Your task to perform on an android device: turn smart compose on in the gmail app Image 0: 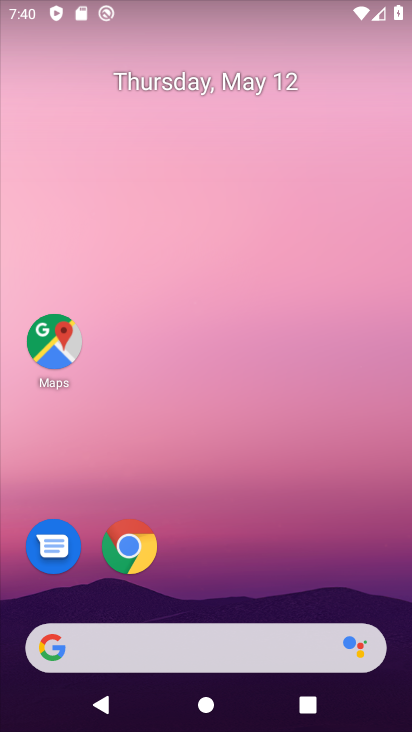
Step 0: drag from (228, 396) to (309, 43)
Your task to perform on an android device: turn smart compose on in the gmail app Image 1: 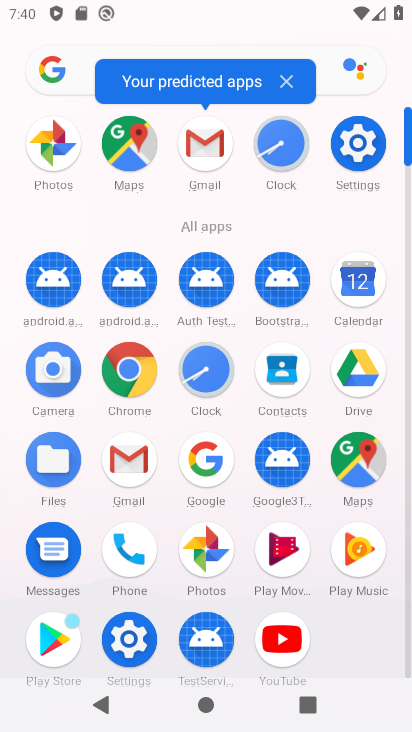
Step 1: click (128, 445)
Your task to perform on an android device: turn smart compose on in the gmail app Image 2: 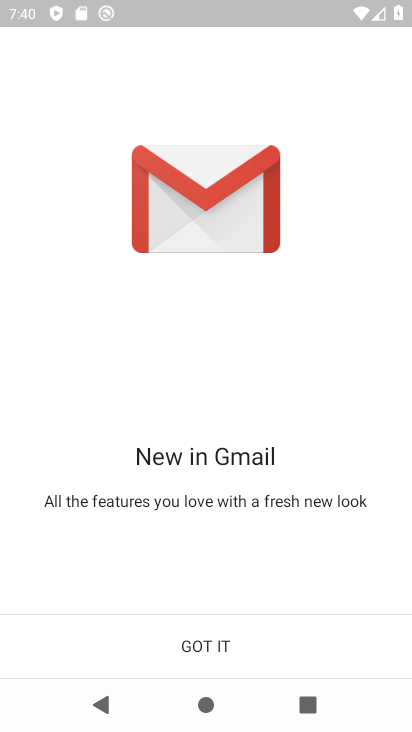
Step 2: click (189, 632)
Your task to perform on an android device: turn smart compose on in the gmail app Image 3: 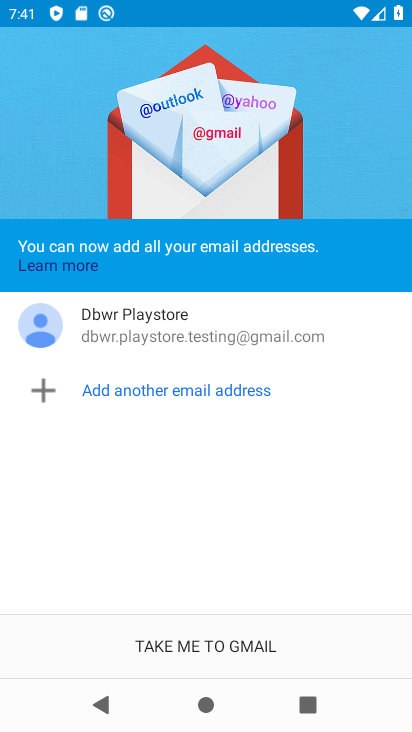
Step 3: click (234, 662)
Your task to perform on an android device: turn smart compose on in the gmail app Image 4: 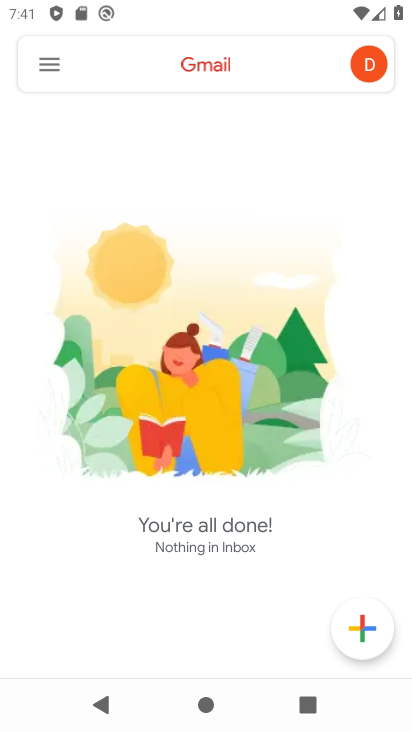
Step 4: click (47, 56)
Your task to perform on an android device: turn smart compose on in the gmail app Image 5: 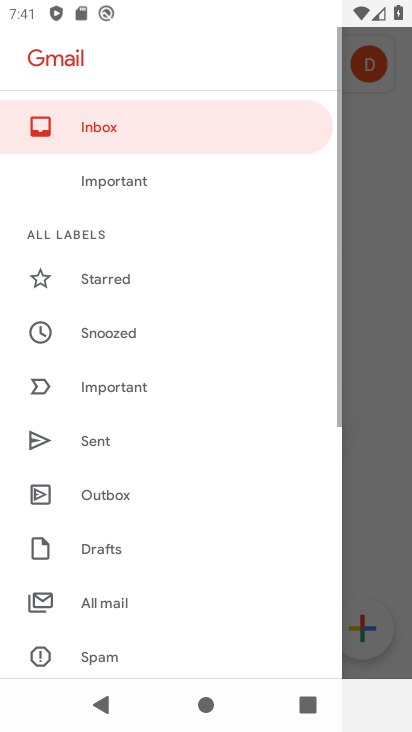
Step 5: drag from (169, 682) to (275, 86)
Your task to perform on an android device: turn smart compose on in the gmail app Image 6: 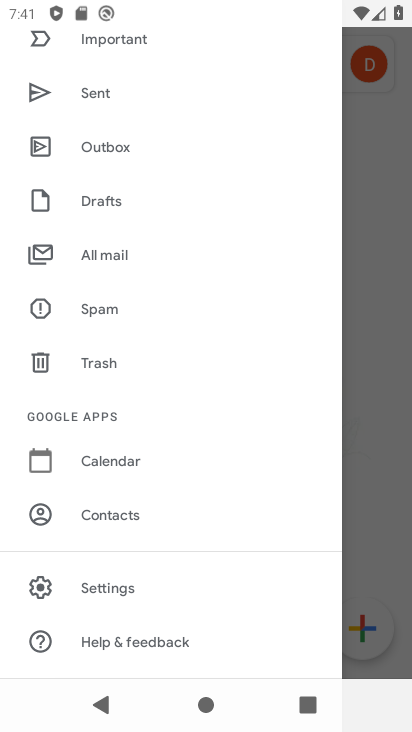
Step 6: click (106, 600)
Your task to perform on an android device: turn smart compose on in the gmail app Image 7: 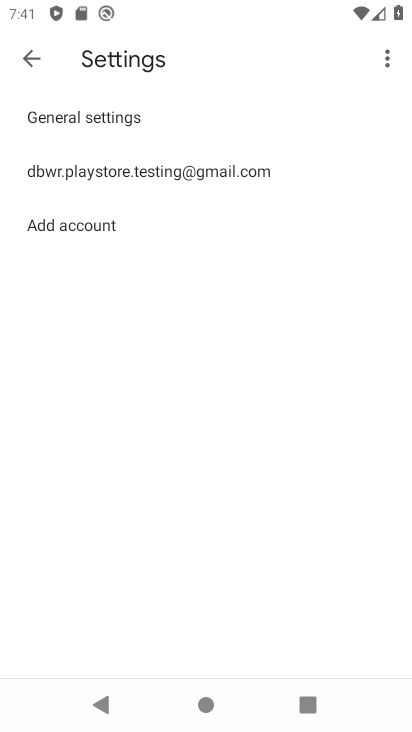
Step 7: click (87, 158)
Your task to perform on an android device: turn smart compose on in the gmail app Image 8: 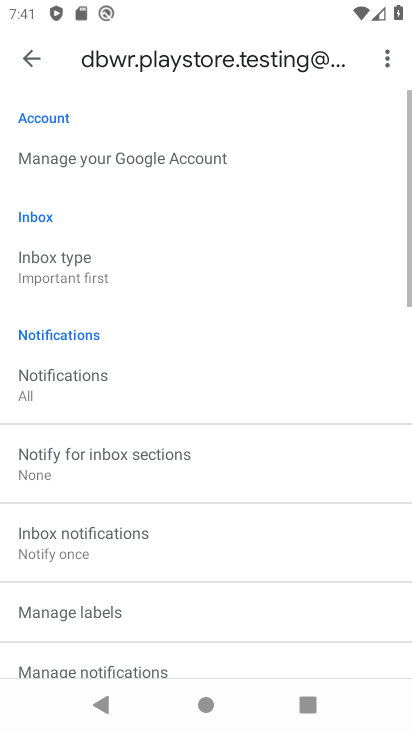
Step 8: task complete